Your task to perform on an android device: install app "DoorDash - Dasher" Image 0: 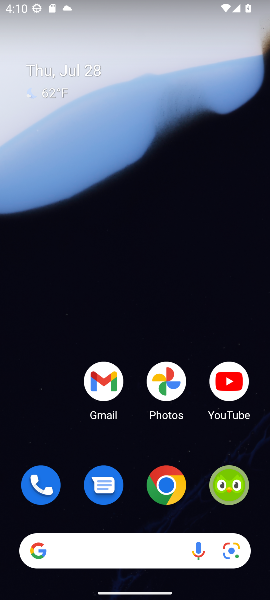
Step 0: drag from (134, 501) to (114, 14)
Your task to perform on an android device: install app "DoorDash - Dasher" Image 1: 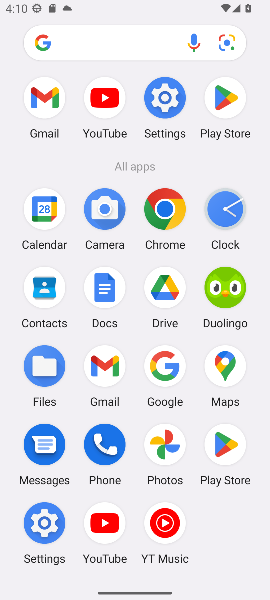
Step 1: click (224, 452)
Your task to perform on an android device: install app "DoorDash - Dasher" Image 2: 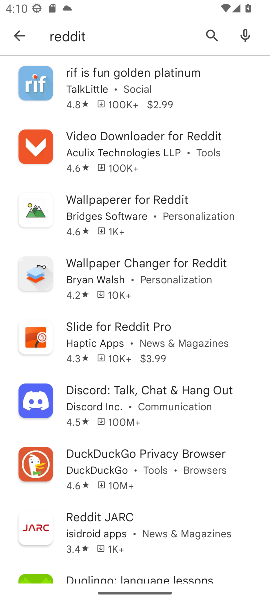
Step 2: click (16, 42)
Your task to perform on an android device: install app "DoorDash - Dasher" Image 3: 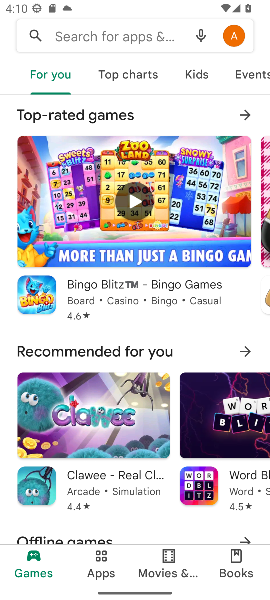
Step 3: click (64, 36)
Your task to perform on an android device: install app "DoorDash - Dasher" Image 4: 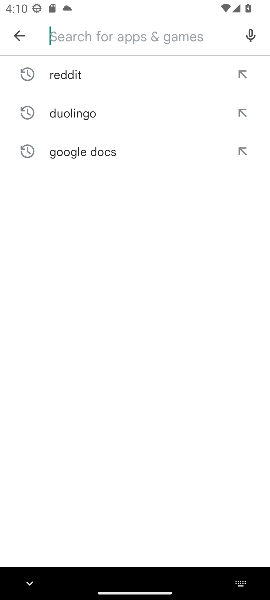
Step 4: type "DoorDash"
Your task to perform on an android device: install app "DoorDash - Dasher" Image 5: 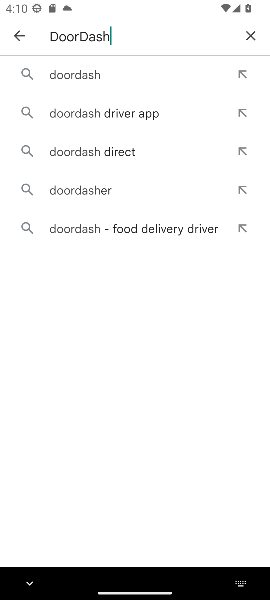
Step 5: click (98, 76)
Your task to perform on an android device: install app "DoorDash - Dasher" Image 6: 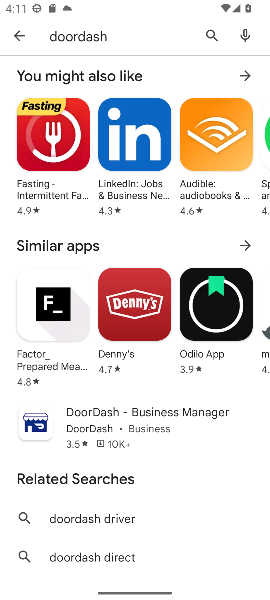
Step 6: drag from (106, 557) to (105, 463)
Your task to perform on an android device: install app "DoorDash - Dasher" Image 7: 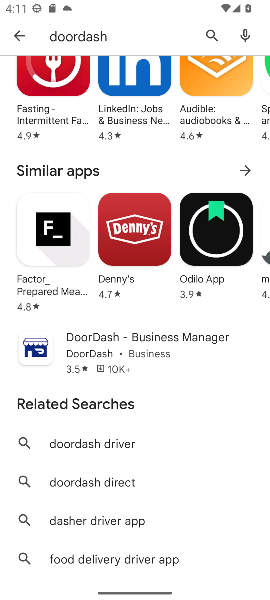
Step 7: drag from (133, 544) to (133, 375)
Your task to perform on an android device: install app "DoorDash - Dasher" Image 8: 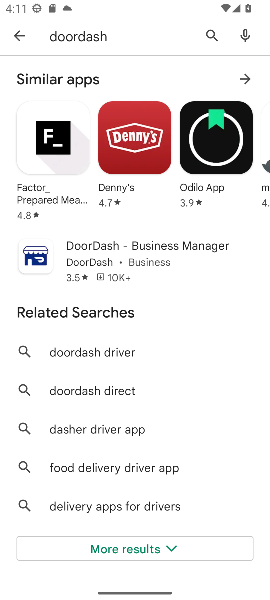
Step 8: click (123, 543)
Your task to perform on an android device: install app "DoorDash - Dasher" Image 9: 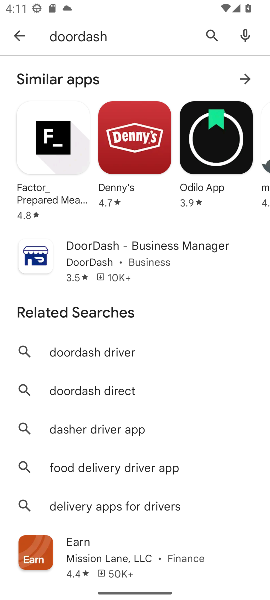
Step 9: drag from (153, 505) to (153, 392)
Your task to perform on an android device: install app "DoorDash - Dasher" Image 10: 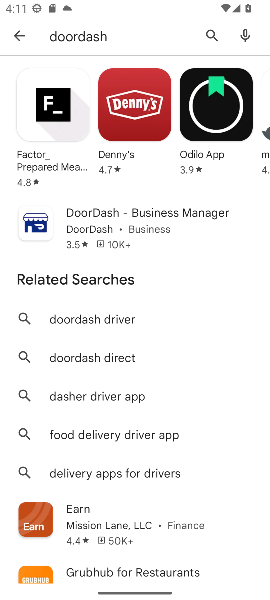
Step 10: drag from (106, 494) to (111, 352)
Your task to perform on an android device: install app "DoorDash - Dasher" Image 11: 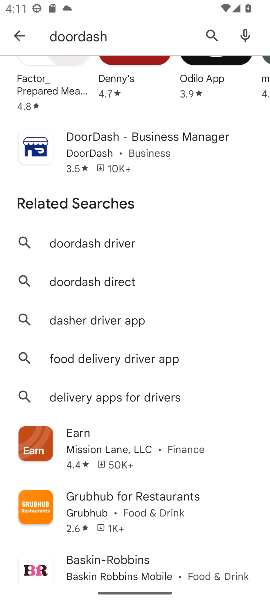
Step 11: drag from (132, 346) to (132, 477)
Your task to perform on an android device: install app "DoorDash - Dasher" Image 12: 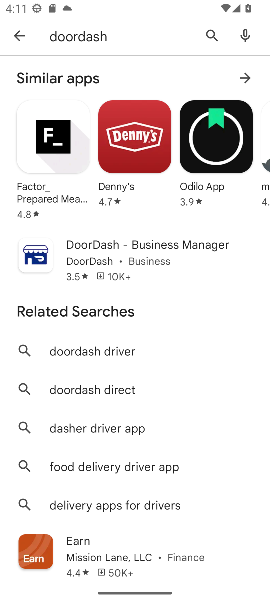
Step 12: drag from (149, 346) to (146, 595)
Your task to perform on an android device: install app "DoorDash - Dasher" Image 13: 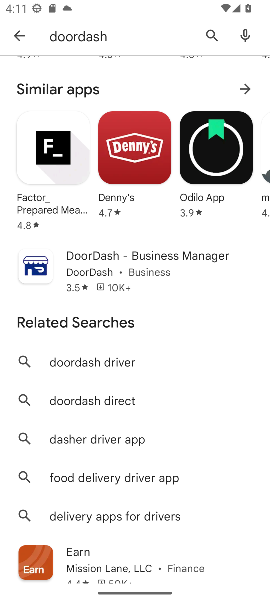
Step 13: drag from (191, 365) to (168, 490)
Your task to perform on an android device: install app "DoorDash - Dasher" Image 14: 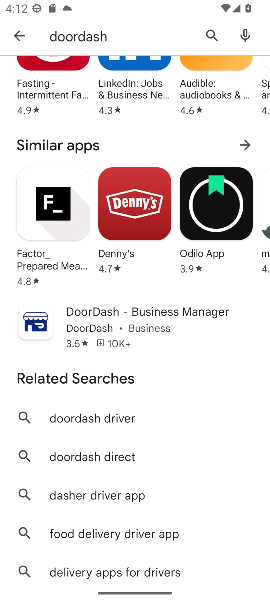
Step 14: click (21, 35)
Your task to perform on an android device: install app "DoorDash - Dasher" Image 15: 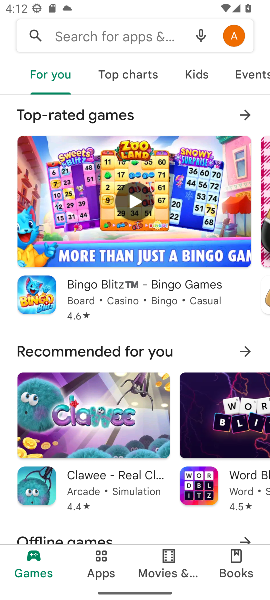
Step 15: click (118, 38)
Your task to perform on an android device: install app "DoorDash - Dasher" Image 16: 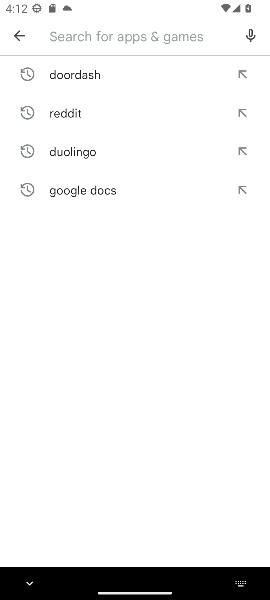
Step 16: type "DoorDash - Dasher"
Your task to perform on an android device: install app "DoorDash - Dasher" Image 17: 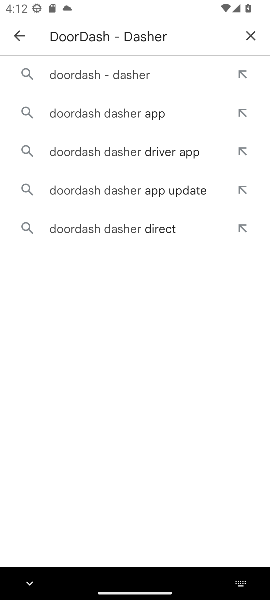
Step 17: click (123, 70)
Your task to perform on an android device: install app "DoorDash - Dasher" Image 18: 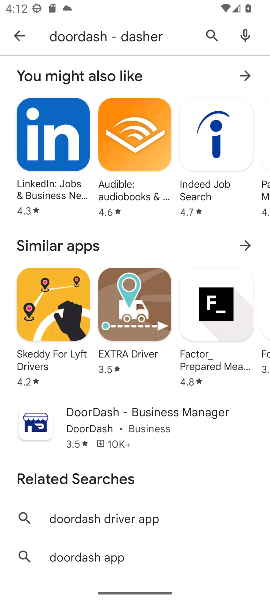
Step 18: task complete